Your task to perform on an android device: open chrome and create a bookmark for the current page Image 0: 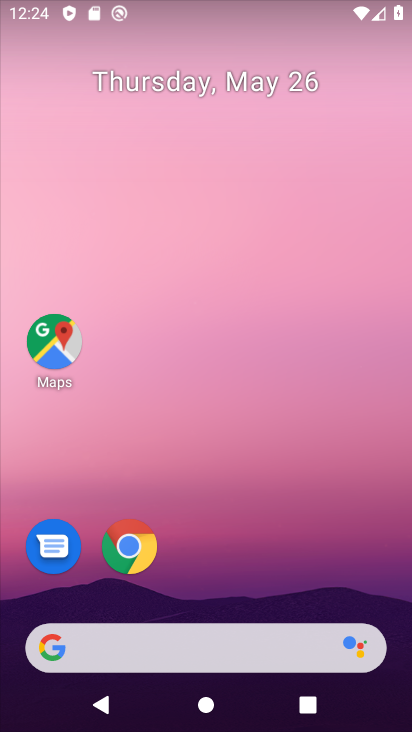
Step 0: click (121, 537)
Your task to perform on an android device: open chrome and create a bookmark for the current page Image 1: 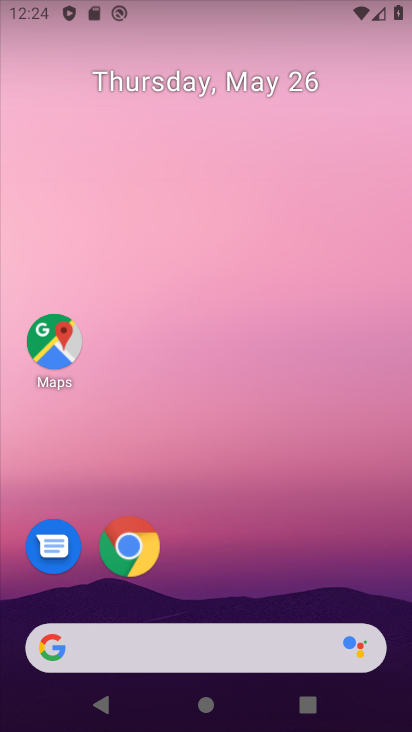
Step 1: click (121, 537)
Your task to perform on an android device: open chrome and create a bookmark for the current page Image 2: 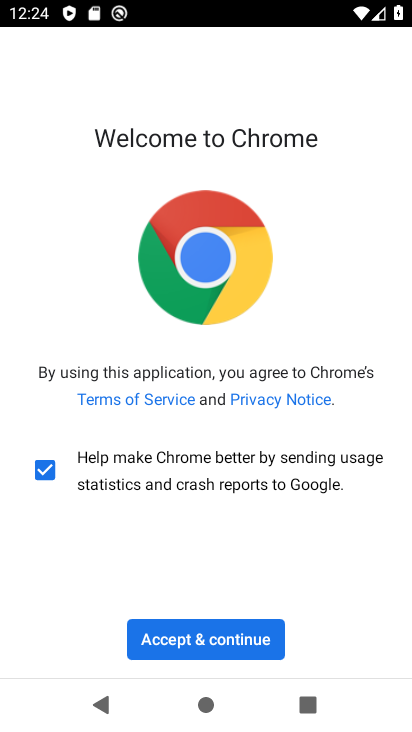
Step 2: click (231, 631)
Your task to perform on an android device: open chrome and create a bookmark for the current page Image 3: 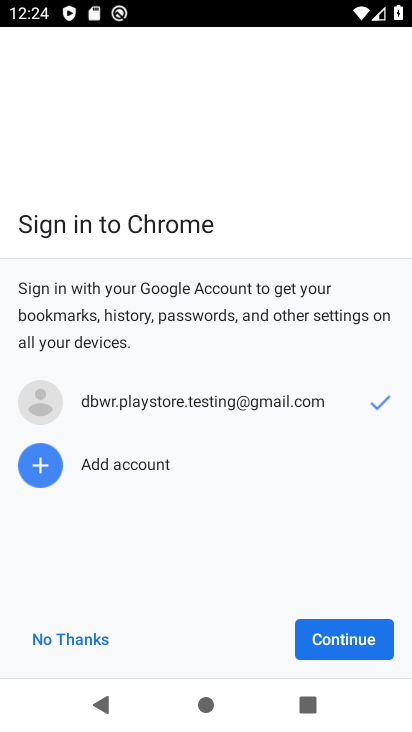
Step 3: click (350, 642)
Your task to perform on an android device: open chrome and create a bookmark for the current page Image 4: 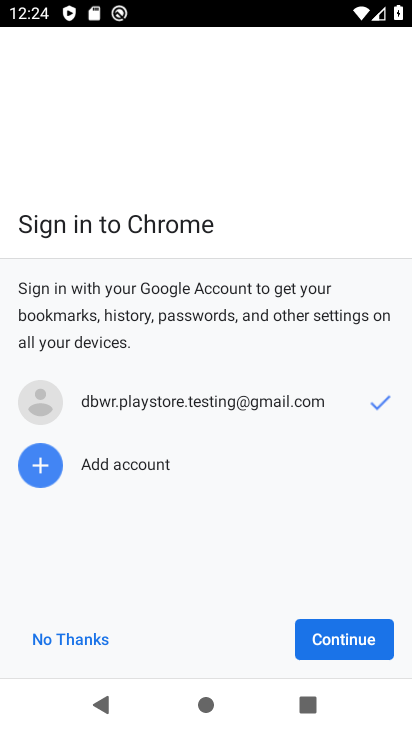
Step 4: click (350, 642)
Your task to perform on an android device: open chrome and create a bookmark for the current page Image 5: 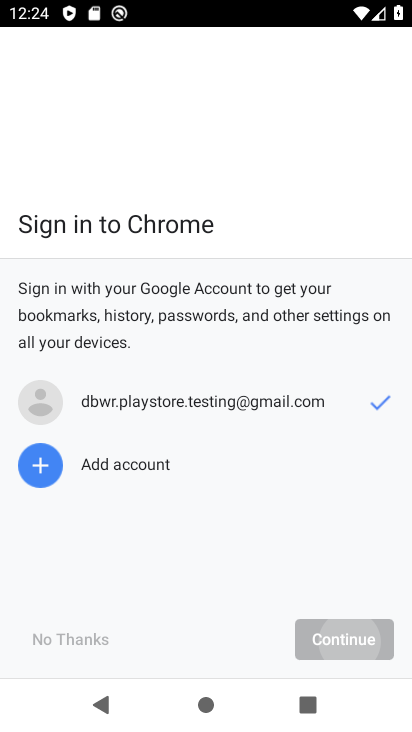
Step 5: click (350, 642)
Your task to perform on an android device: open chrome and create a bookmark for the current page Image 6: 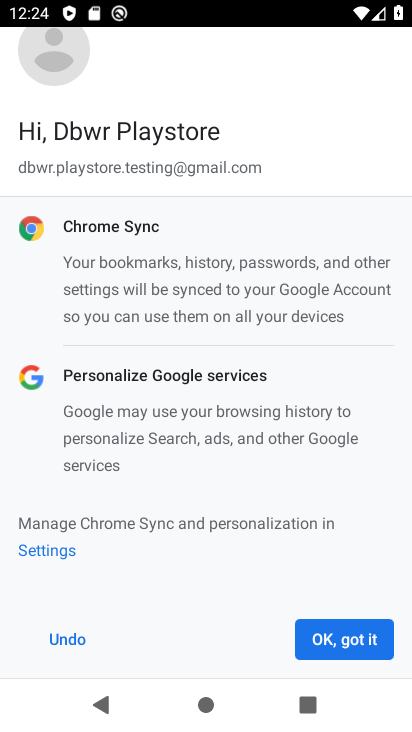
Step 6: click (350, 642)
Your task to perform on an android device: open chrome and create a bookmark for the current page Image 7: 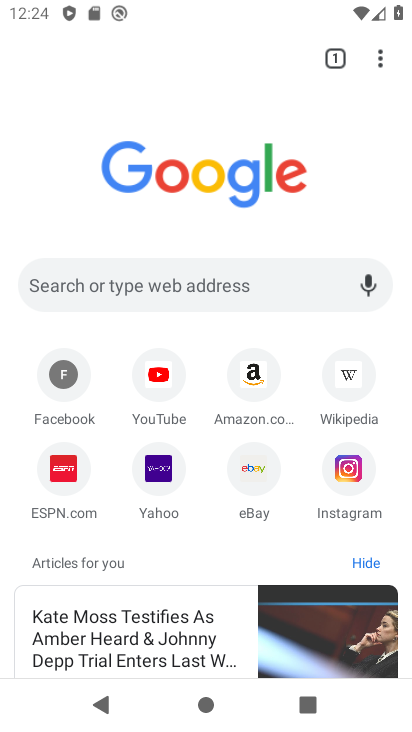
Step 7: task complete